Your task to perform on an android device: See recent photos Image 0: 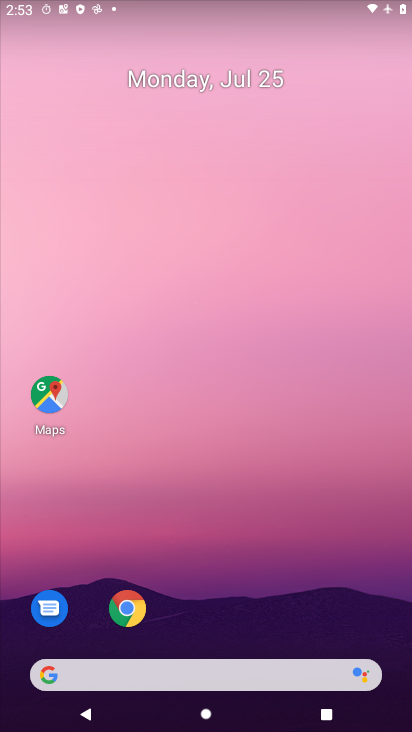
Step 0: drag from (271, 656) to (294, 173)
Your task to perform on an android device: See recent photos Image 1: 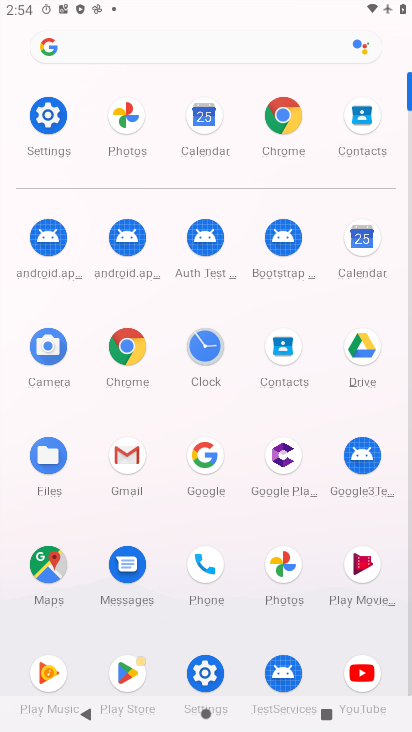
Step 1: click (267, 580)
Your task to perform on an android device: See recent photos Image 2: 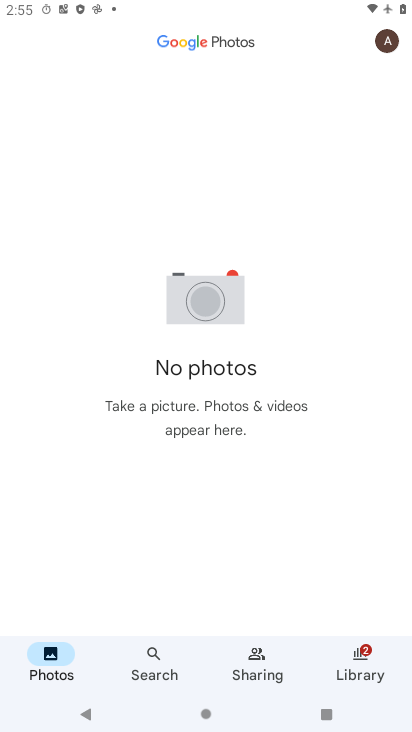
Step 2: click (382, 35)
Your task to perform on an android device: See recent photos Image 3: 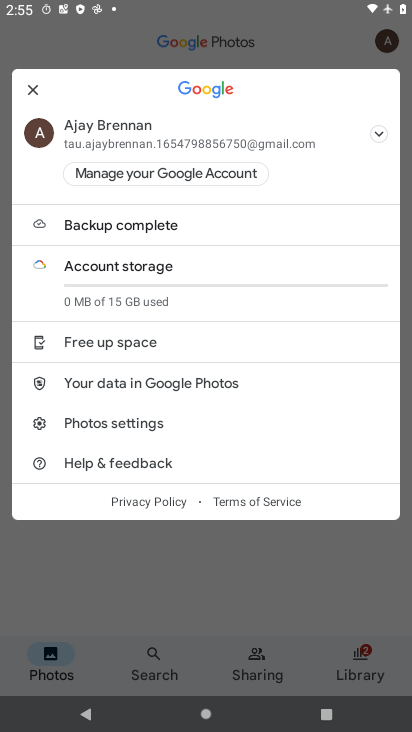
Step 3: task complete